Your task to perform on an android device: Go to wifi settings Image 0: 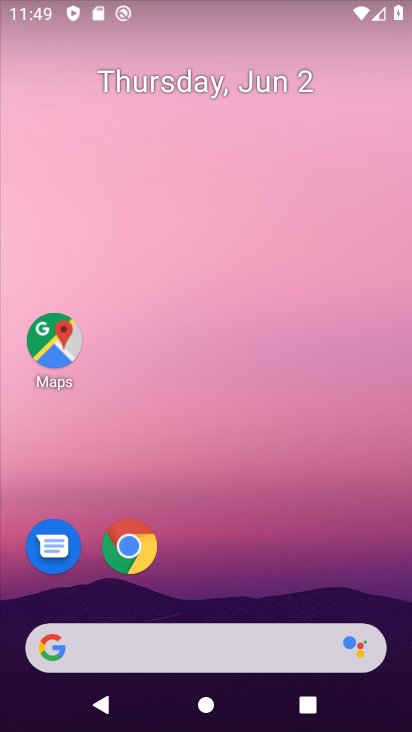
Step 0: click (339, 111)
Your task to perform on an android device: Go to wifi settings Image 1: 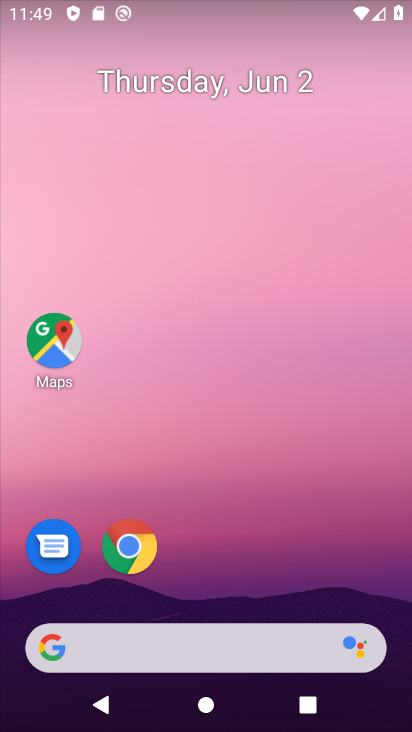
Step 1: drag from (201, 605) to (286, 157)
Your task to perform on an android device: Go to wifi settings Image 2: 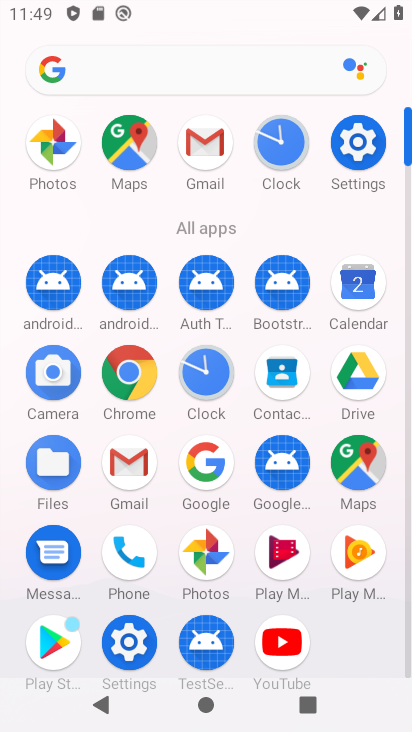
Step 2: click (115, 644)
Your task to perform on an android device: Go to wifi settings Image 3: 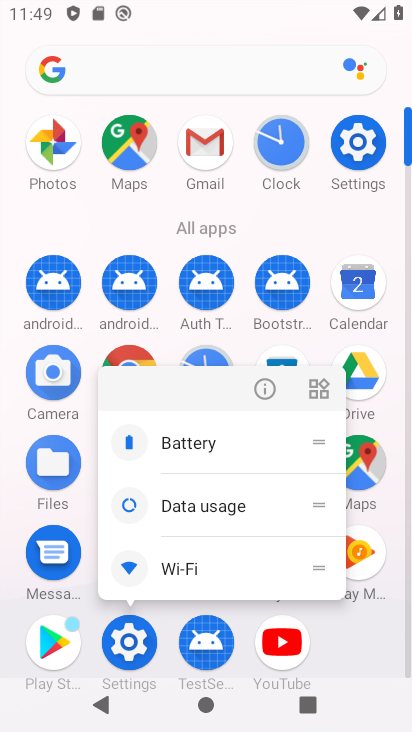
Step 3: click (137, 636)
Your task to perform on an android device: Go to wifi settings Image 4: 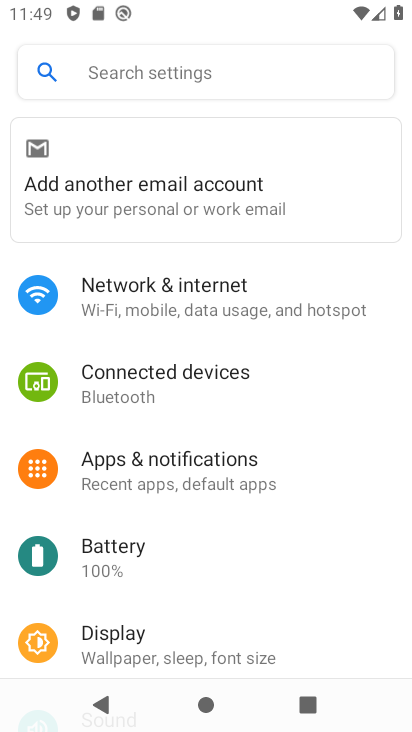
Step 4: click (203, 312)
Your task to perform on an android device: Go to wifi settings Image 5: 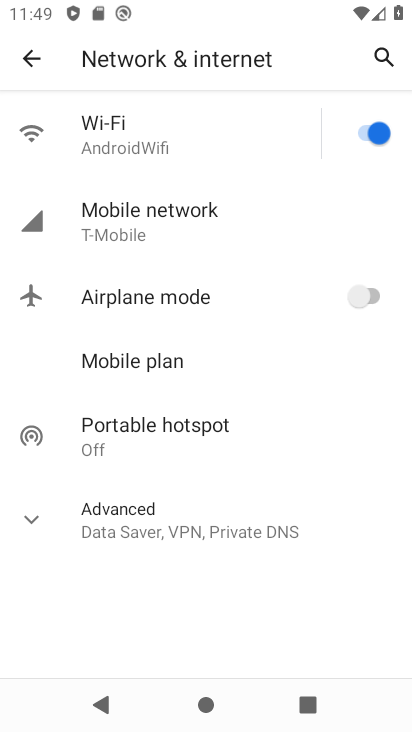
Step 5: click (132, 150)
Your task to perform on an android device: Go to wifi settings Image 6: 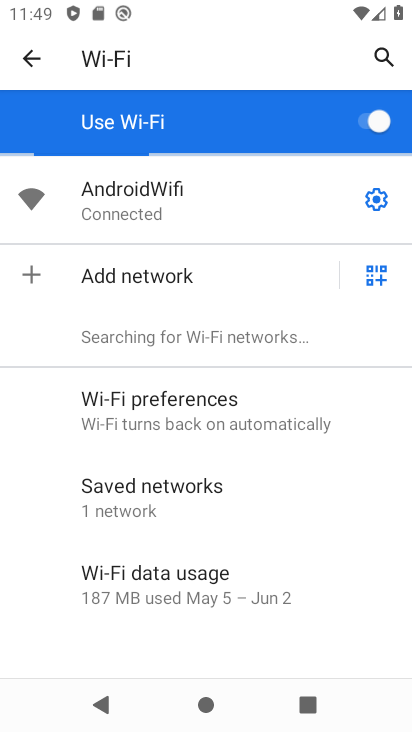
Step 6: task complete